Your task to perform on an android device: star an email in the gmail app Image 0: 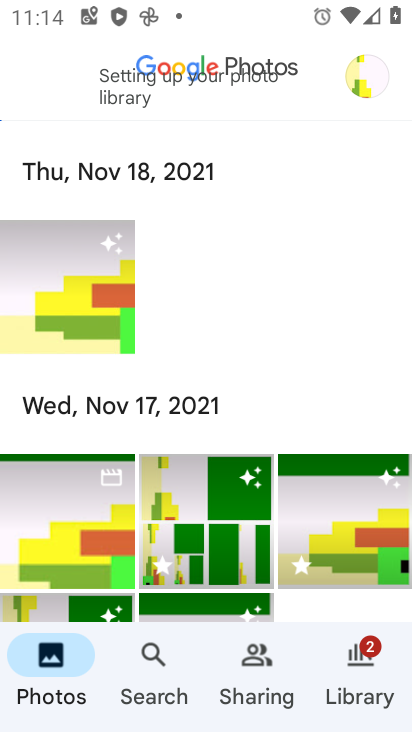
Step 0: click (70, 360)
Your task to perform on an android device: star an email in the gmail app Image 1: 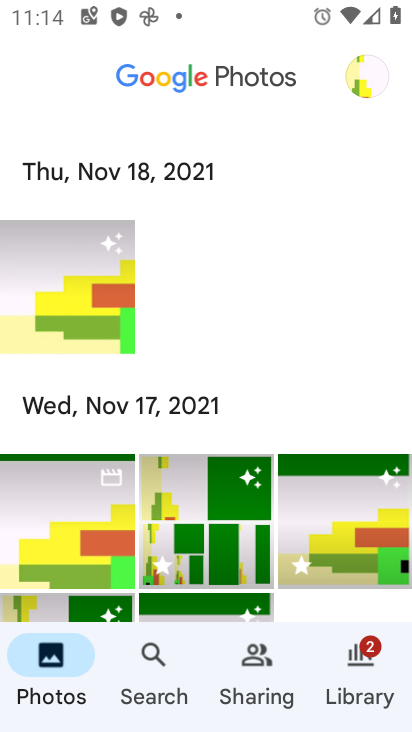
Step 1: press home button
Your task to perform on an android device: star an email in the gmail app Image 2: 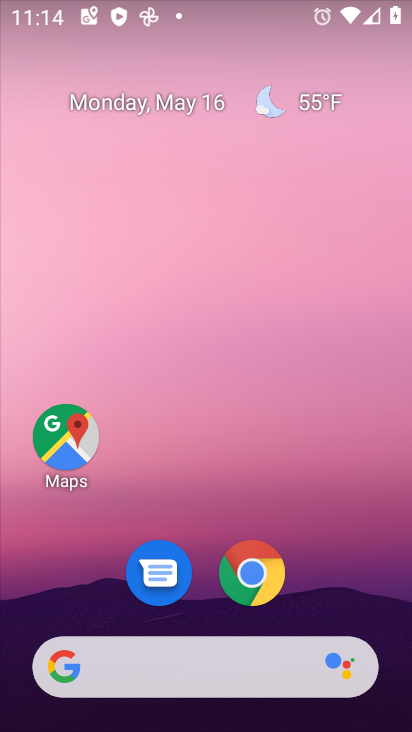
Step 2: drag from (338, 542) to (283, 195)
Your task to perform on an android device: star an email in the gmail app Image 3: 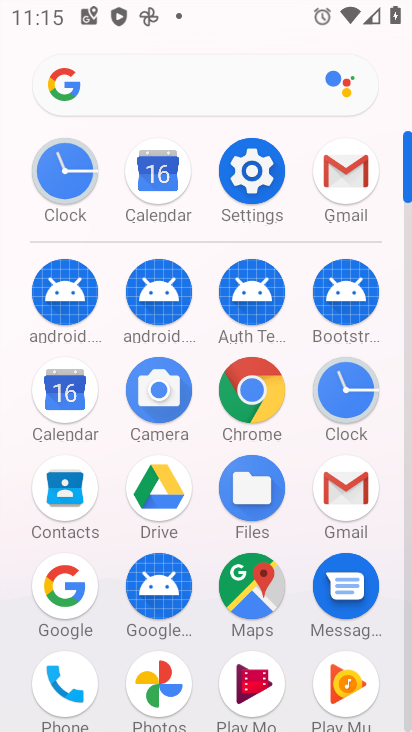
Step 3: click (345, 490)
Your task to perform on an android device: star an email in the gmail app Image 4: 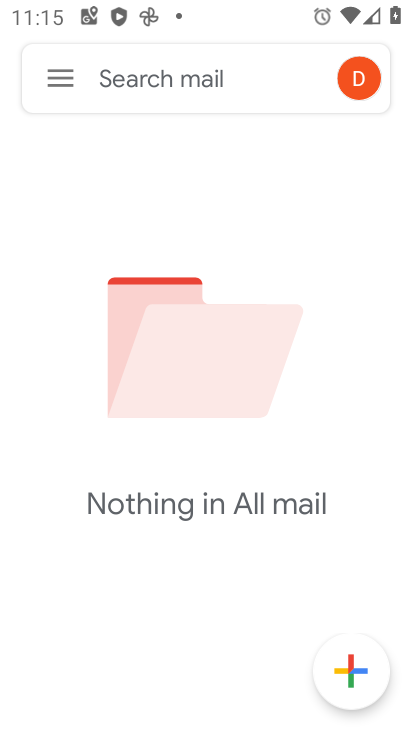
Step 4: task complete